Your task to perform on an android device: Do I have any events today? Image 0: 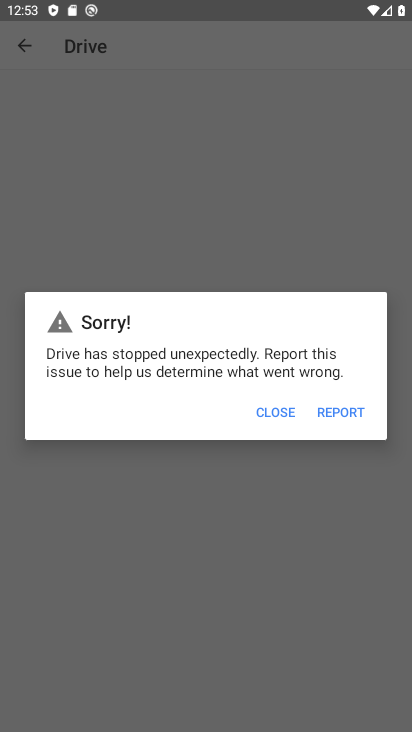
Step 0: press home button
Your task to perform on an android device: Do I have any events today? Image 1: 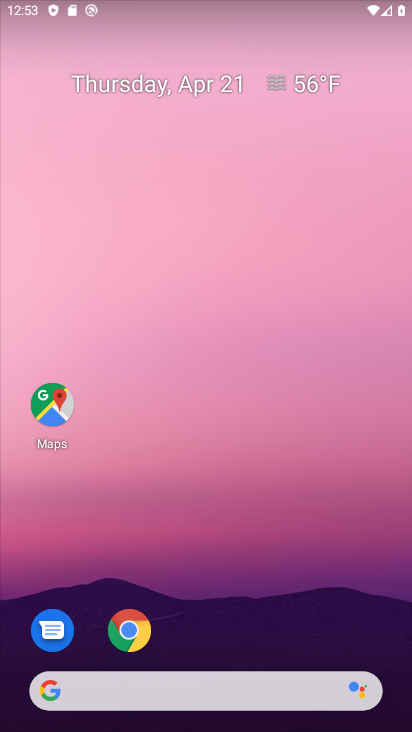
Step 1: drag from (178, 686) to (141, 110)
Your task to perform on an android device: Do I have any events today? Image 2: 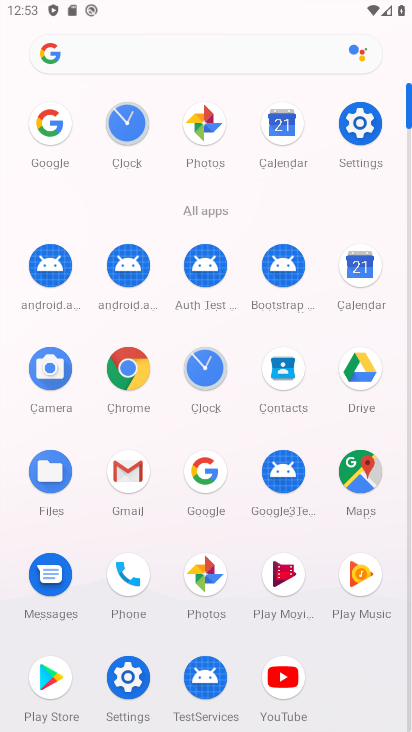
Step 2: click (352, 282)
Your task to perform on an android device: Do I have any events today? Image 3: 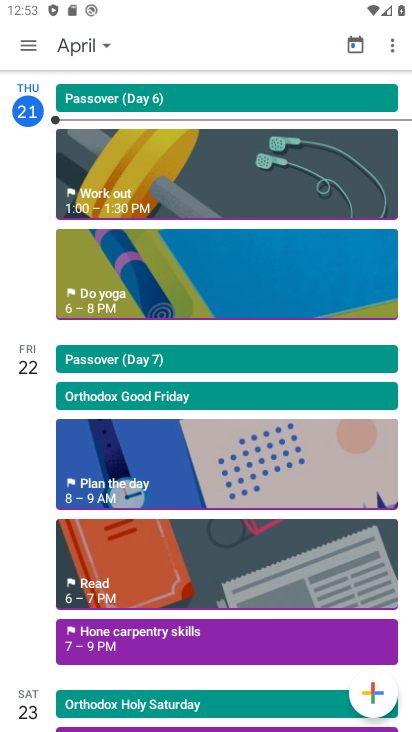
Step 3: click (27, 48)
Your task to perform on an android device: Do I have any events today? Image 4: 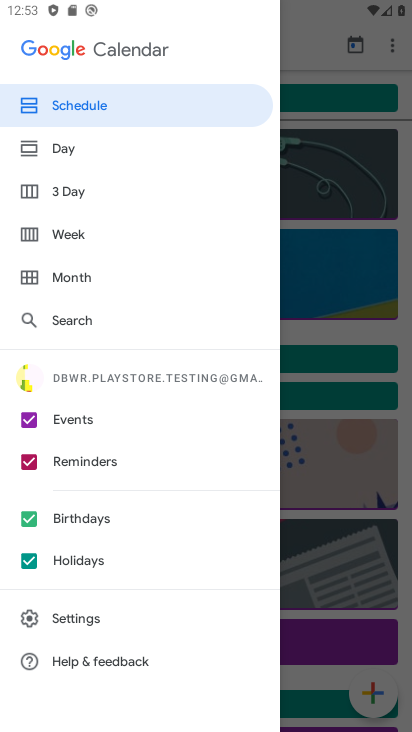
Step 4: click (78, 102)
Your task to perform on an android device: Do I have any events today? Image 5: 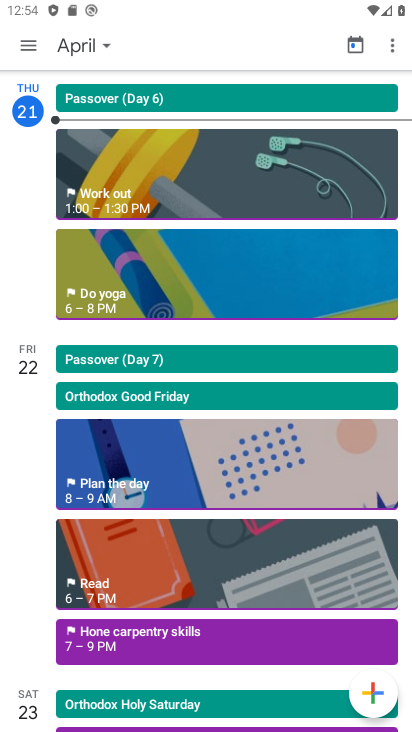
Step 5: task complete